Your task to perform on an android device: Go to accessibility settings Image 0: 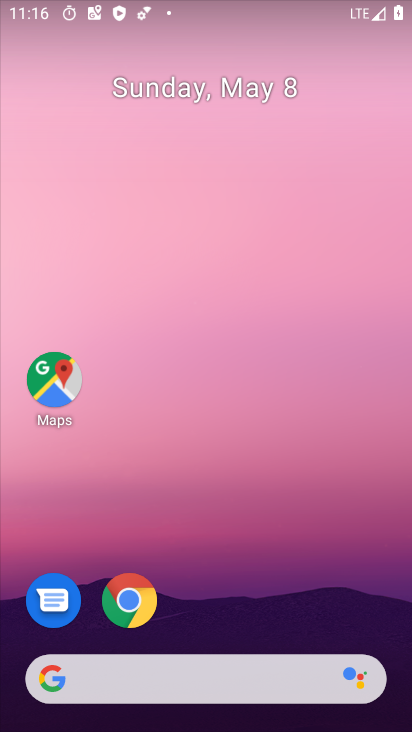
Step 0: drag from (52, 542) to (177, 273)
Your task to perform on an android device: Go to accessibility settings Image 1: 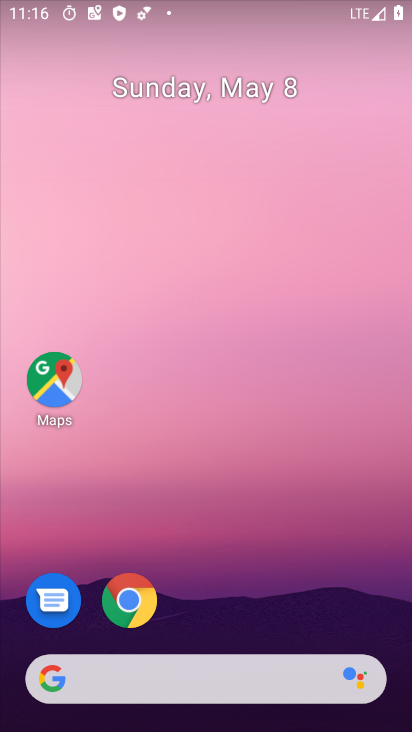
Step 1: drag from (22, 636) to (273, 171)
Your task to perform on an android device: Go to accessibility settings Image 2: 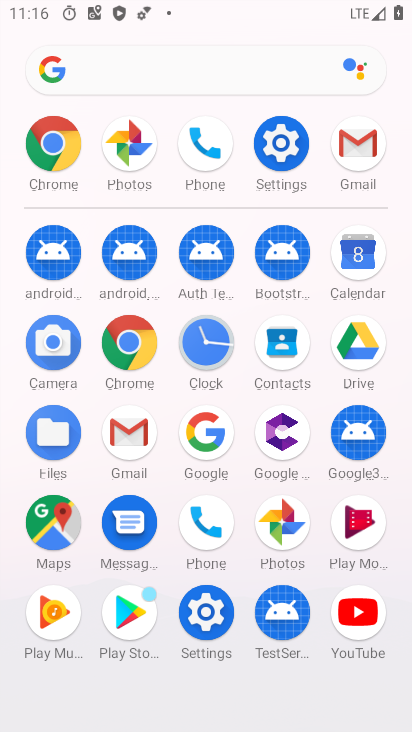
Step 2: click (197, 616)
Your task to perform on an android device: Go to accessibility settings Image 3: 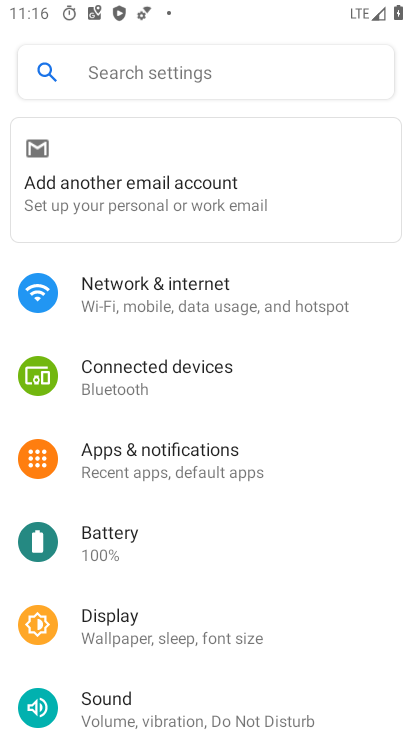
Step 3: drag from (258, 655) to (275, 306)
Your task to perform on an android device: Go to accessibility settings Image 4: 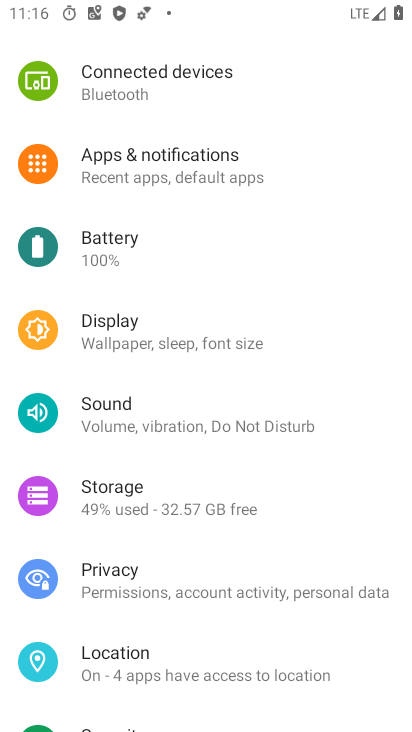
Step 4: drag from (122, 654) to (223, 308)
Your task to perform on an android device: Go to accessibility settings Image 5: 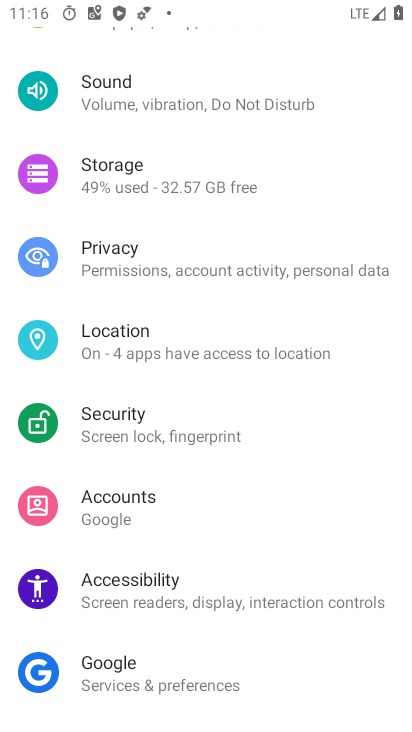
Step 5: click (137, 590)
Your task to perform on an android device: Go to accessibility settings Image 6: 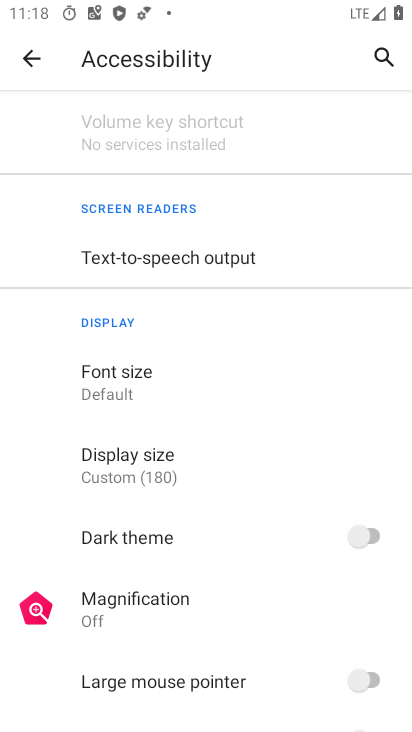
Step 6: task complete